Your task to perform on an android device: Open notification settings Image 0: 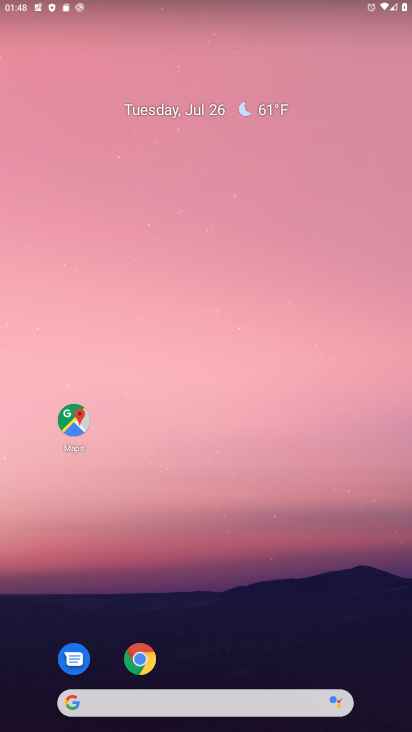
Step 0: drag from (349, 593) to (0, 404)
Your task to perform on an android device: Open notification settings Image 1: 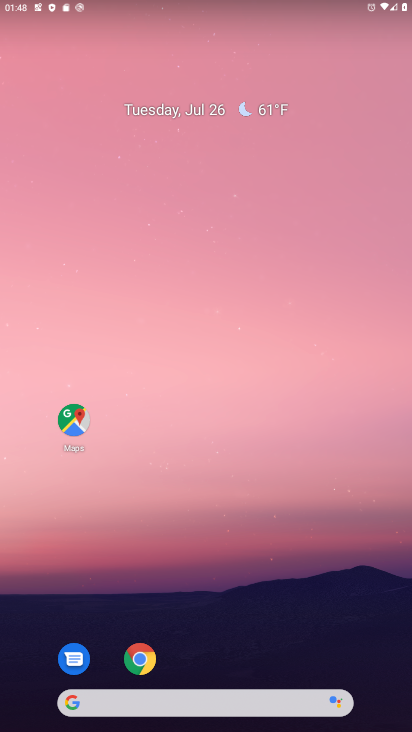
Step 1: drag from (273, 399) to (185, 6)
Your task to perform on an android device: Open notification settings Image 2: 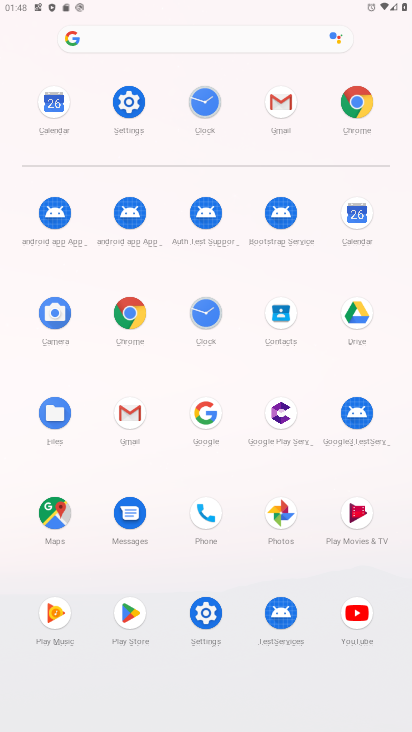
Step 2: click (121, 101)
Your task to perform on an android device: Open notification settings Image 3: 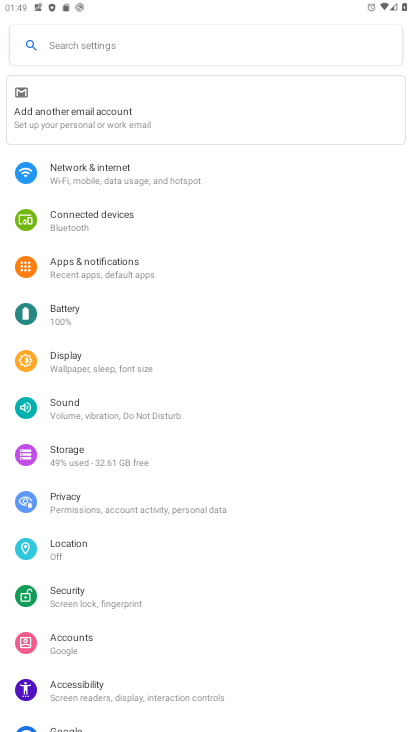
Step 3: click (111, 269)
Your task to perform on an android device: Open notification settings Image 4: 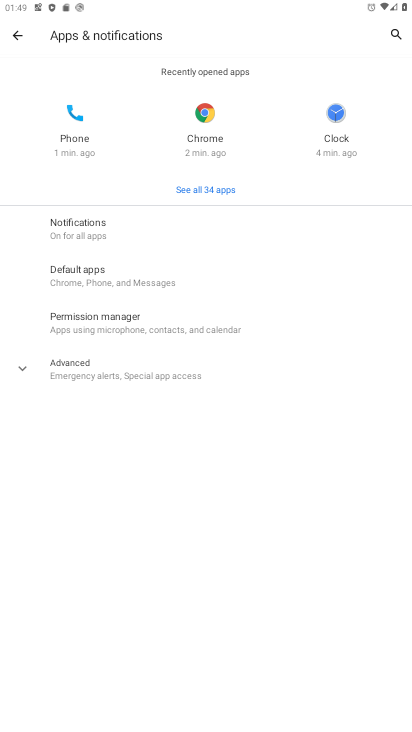
Step 4: click (141, 238)
Your task to perform on an android device: Open notification settings Image 5: 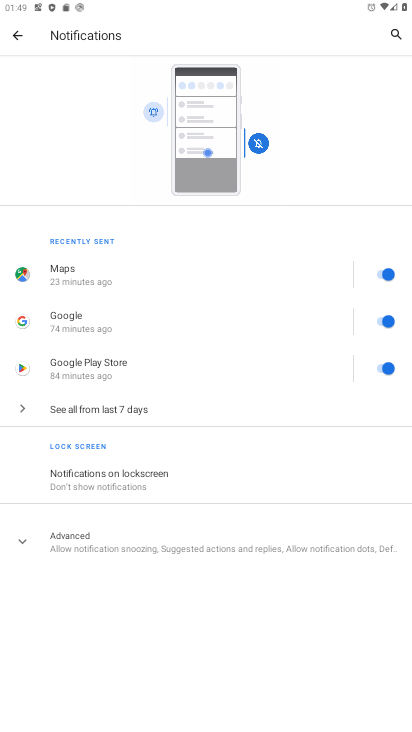
Step 5: task complete